Your task to perform on an android device: Open Google Maps and go to "Timeline" Image 0: 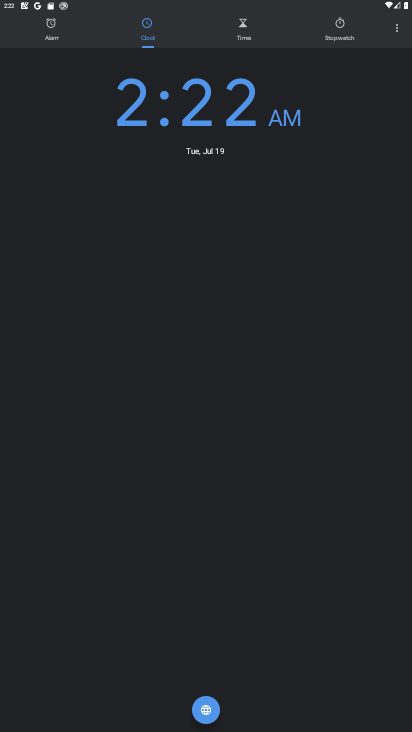
Step 0: press home button
Your task to perform on an android device: Open Google Maps and go to "Timeline" Image 1: 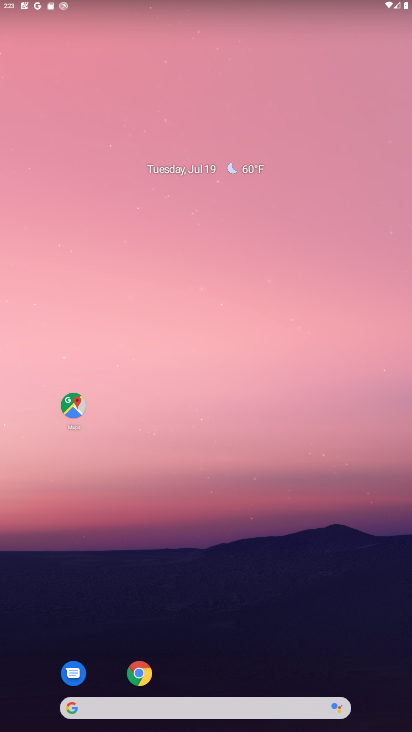
Step 1: click (79, 411)
Your task to perform on an android device: Open Google Maps and go to "Timeline" Image 2: 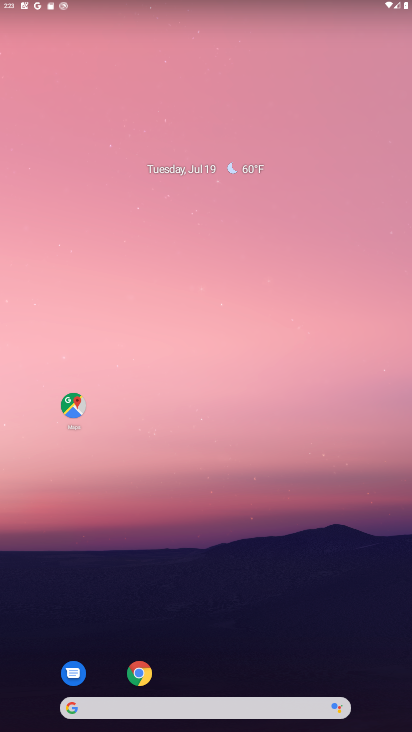
Step 2: click (79, 411)
Your task to perform on an android device: Open Google Maps and go to "Timeline" Image 3: 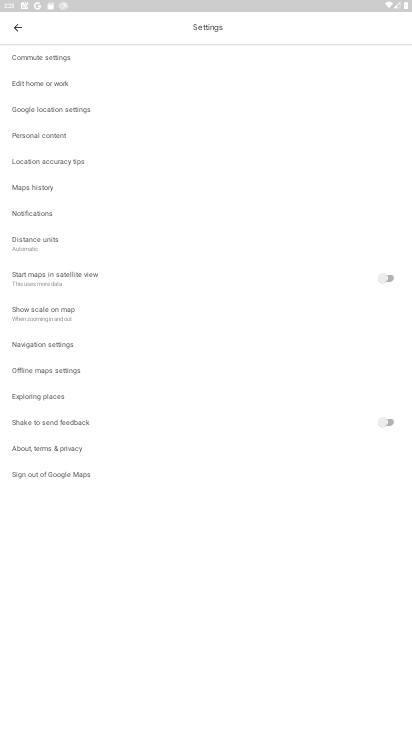
Step 3: click (13, 24)
Your task to perform on an android device: Open Google Maps and go to "Timeline" Image 4: 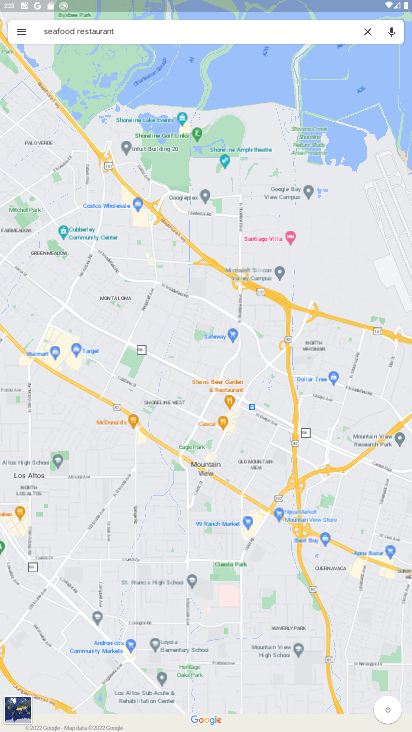
Step 4: click (19, 29)
Your task to perform on an android device: Open Google Maps and go to "Timeline" Image 5: 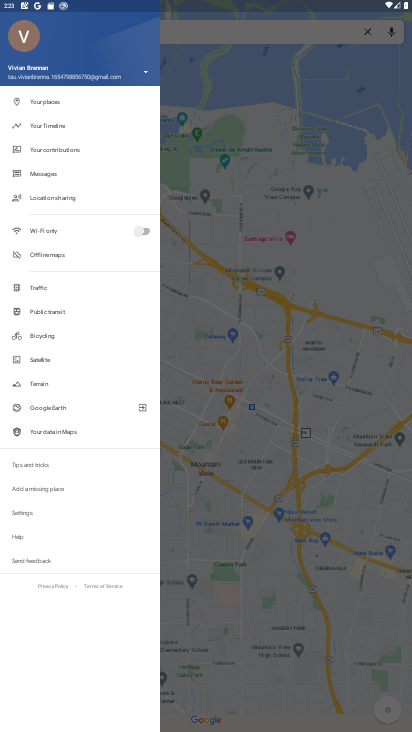
Step 5: click (55, 125)
Your task to perform on an android device: Open Google Maps and go to "Timeline" Image 6: 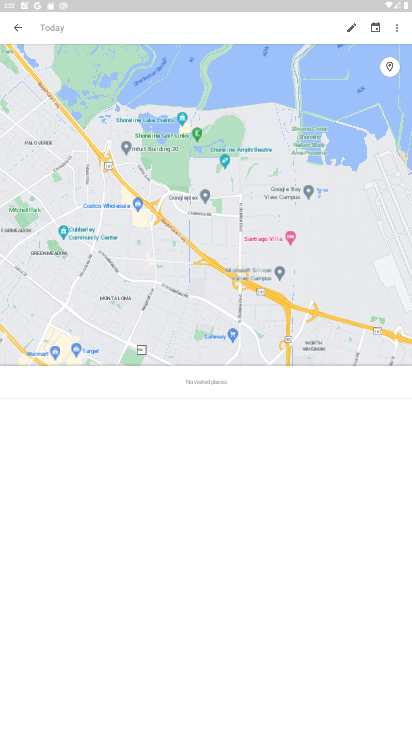
Step 6: task complete